Your task to perform on an android device: Do I have any events tomorrow? Image 0: 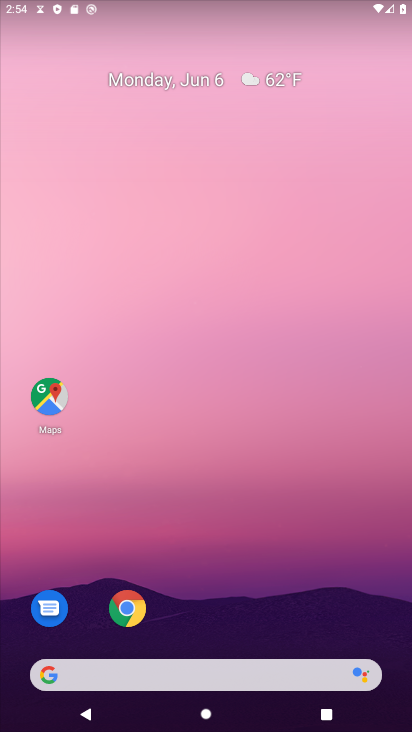
Step 0: drag from (231, 629) to (211, 16)
Your task to perform on an android device: Do I have any events tomorrow? Image 1: 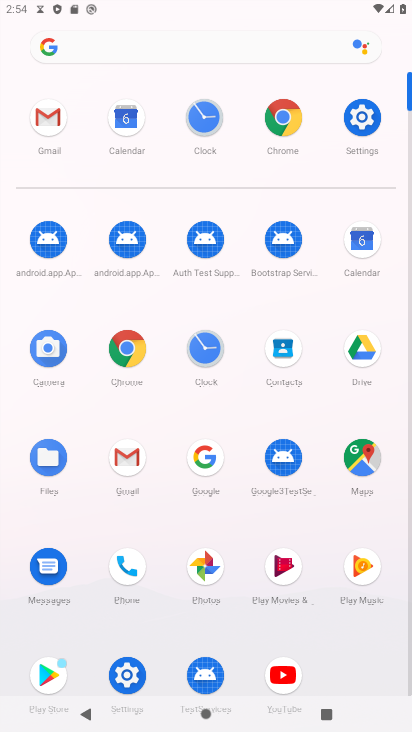
Step 1: click (360, 244)
Your task to perform on an android device: Do I have any events tomorrow? Image 2: 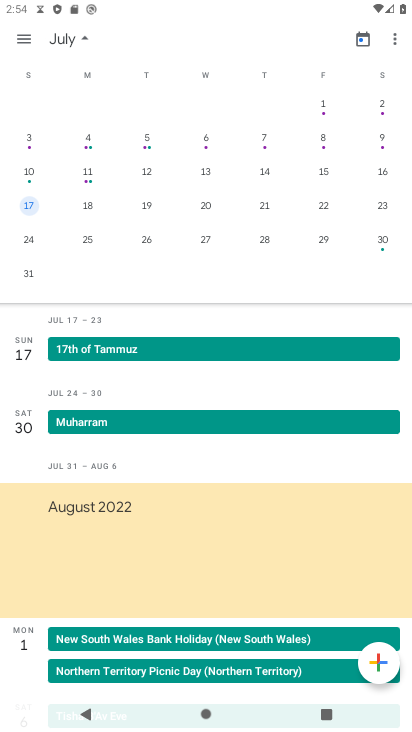
Step 2: drag from (73, 151) to (389, 200)
Your task to perform on an android device: Do I have any events tomorrow? Image 3: 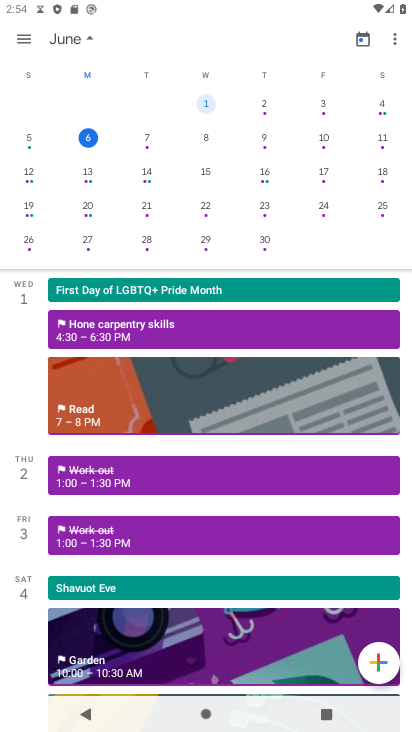
Step 3: click (154, 140)
Your task to perform on an android device: Do I have any events tomorrow? Image 4: 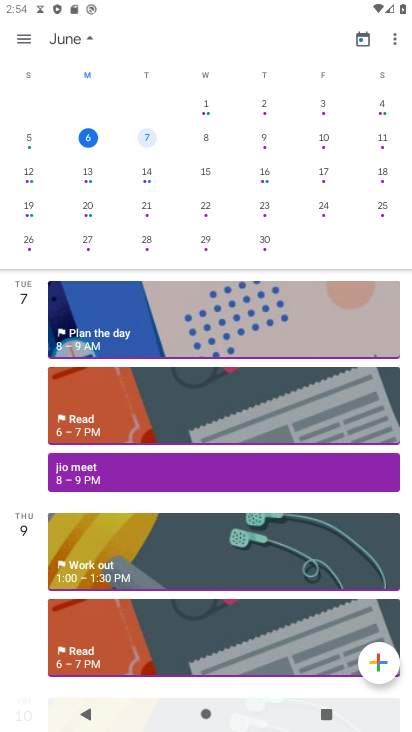
Step 4: task complete